Your task to perform on an android device: Open settings on Google Maps Image 0: 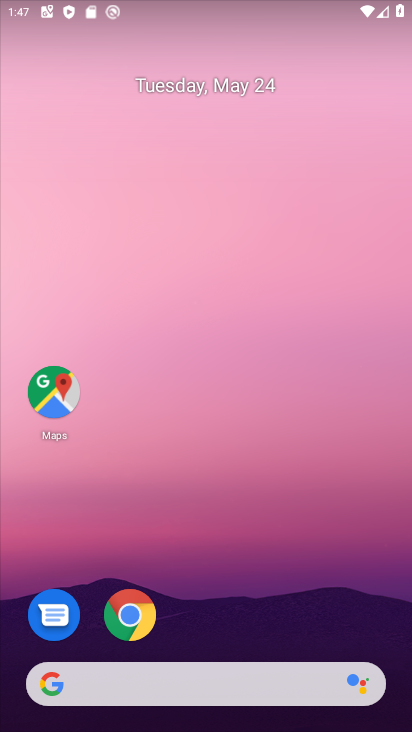
Step 0: drag from (217, 323) to (217, 50)
Your task to perform on an android device: Open settings on Google Maps Image 1: 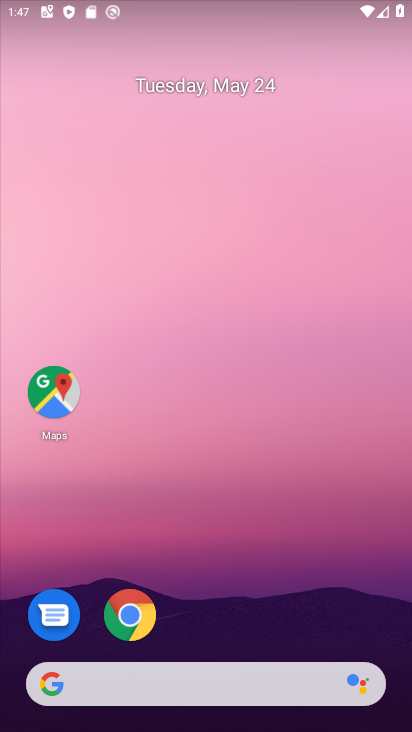
Step 1: click (51, 385)
Your task to perform on an android device: Open settings on Google Maps Image 2: 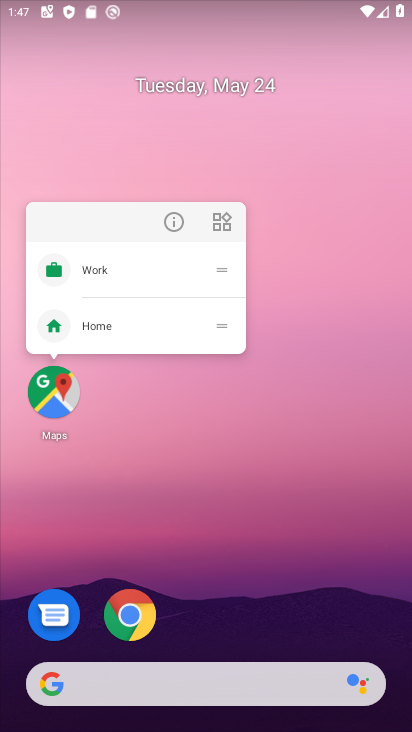
Step 2: click (55, 390)
Your task to perform on an android device: Open settings on Google Maps Image 3: 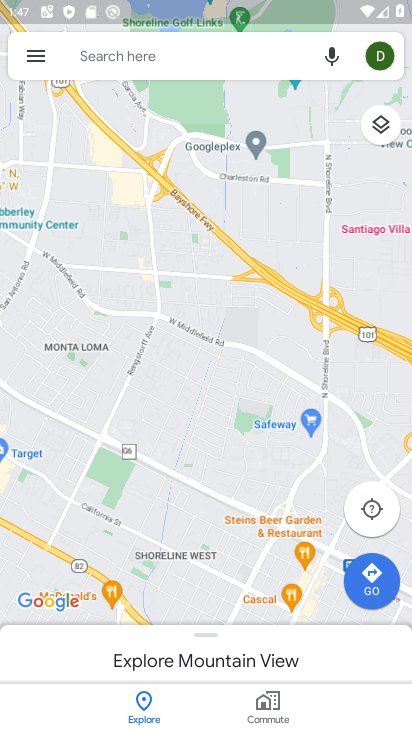
Step 3: click (30, 54)
Your task to perform on an android device: Open settings on Google Maps Image 4: 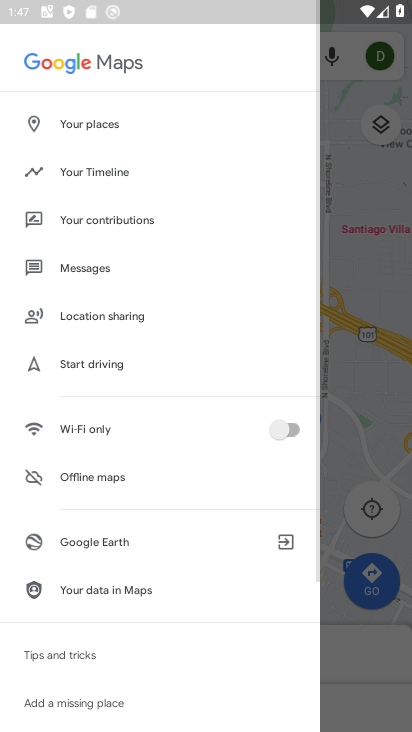
Step 4: drag from (131, 631) to (132, 97)
Your task to perform on an android device: Open settings on Google Maps Image 5: 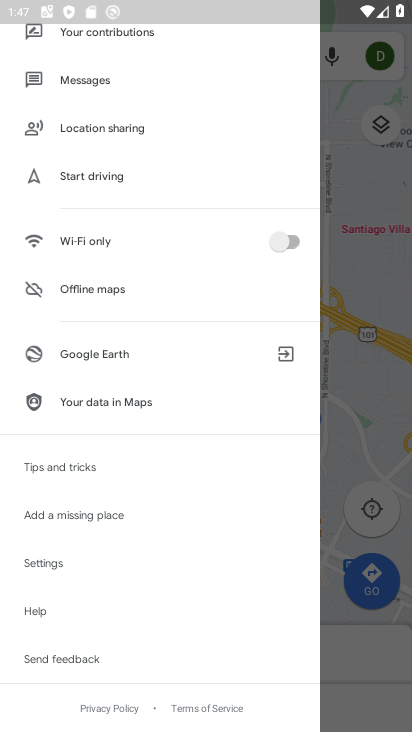
Step 5: click (71, 562)
Your task to perform on an android device: Open settings on Google Maps Image 6: 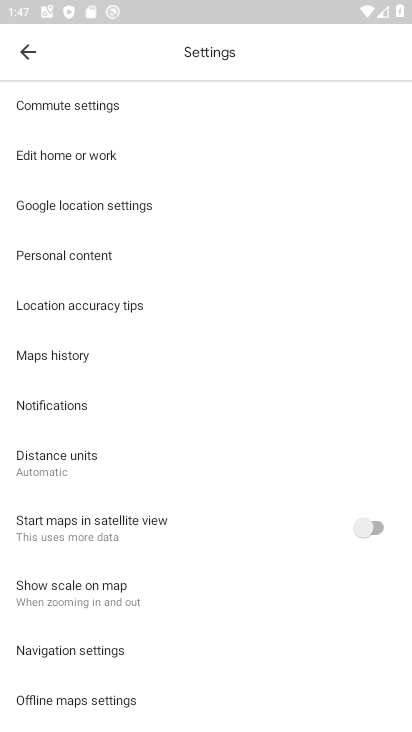
Step 6: task complete